Your task to perform on an android device: Open Yahoo.com Image 0: 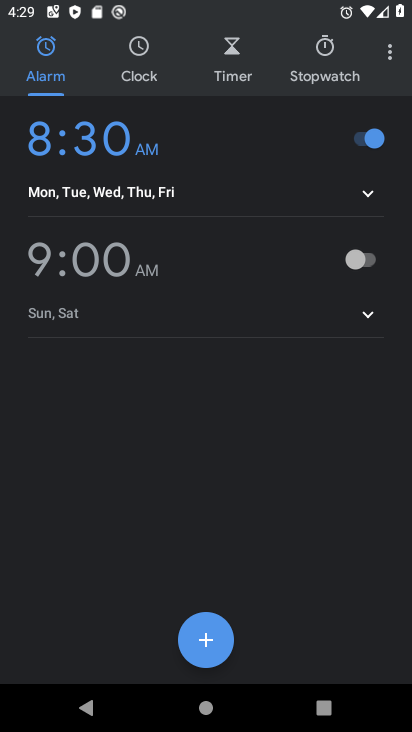
Step 0: press home button
Your task to perform on an android device: Open Yahoo.com Image 1: 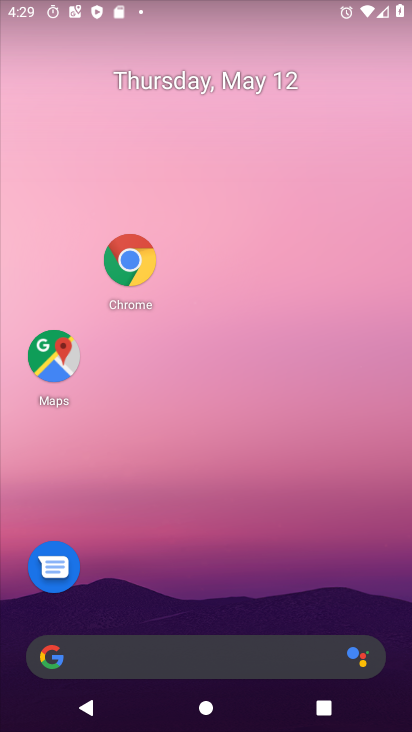
Step 1: drag from (190, 638) to (228, 327)
Your task to perform on an android device: Open Yahoo.com Image 2: 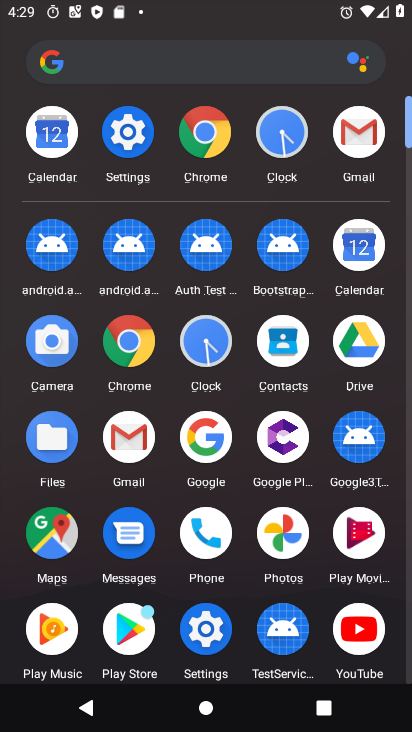
Step 2: click (200, 139)
Your task to perform on an android device: Open Yahoo.com Image 3: 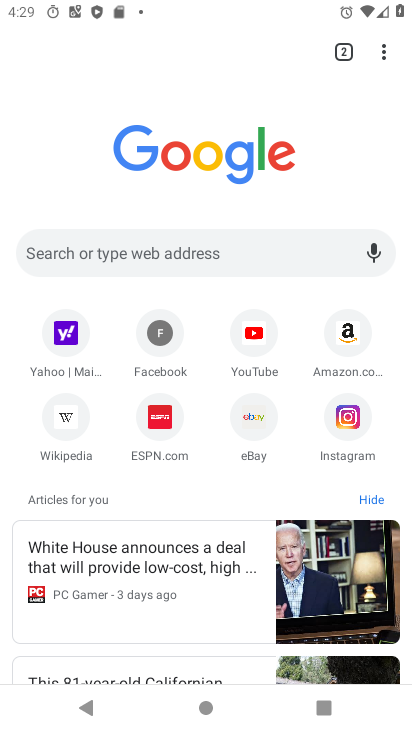
Step 3: click (65, 344)
Your task to perform on an android device: Open Yahoo.com Image 4: 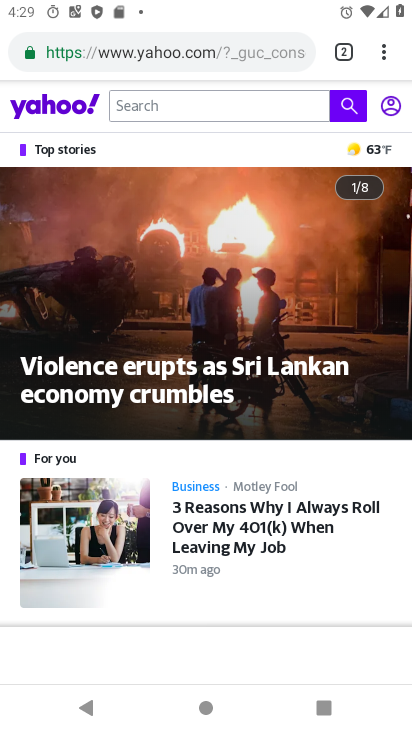
Step 4: drag from (160, 665) to (195, 332)
Your task to perform on an android device: Open Yahoo.com Image 5: 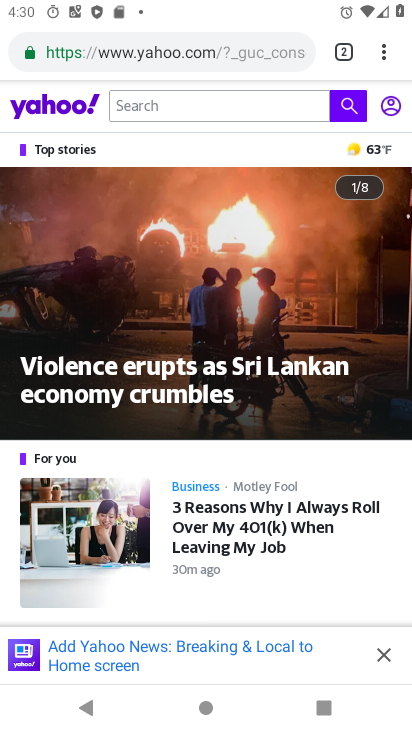
Step 5: click (388, 657)
Your task to perform on an android device: Open Yahoo.com Image 6: 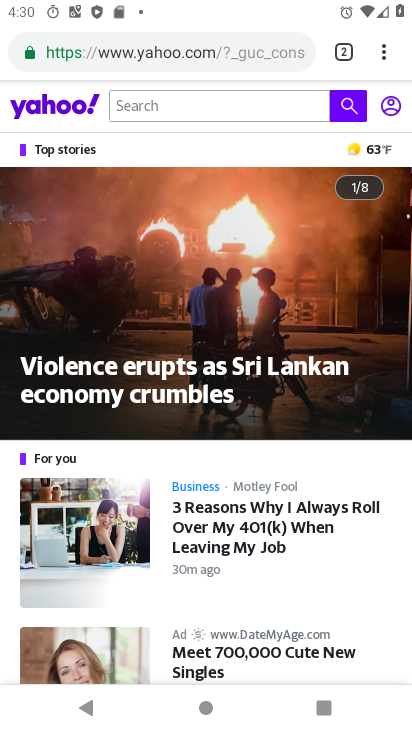
Step 6: task complete